Your task to perform on an android device: Open sound settings Image 0: 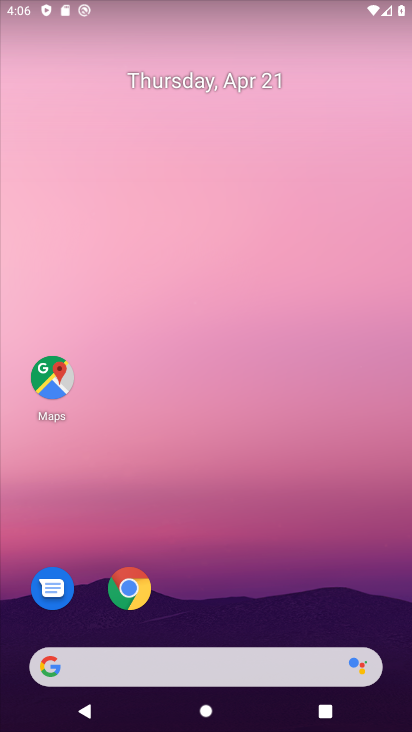
Step 0: drag from (334, 568) to (360, 173)
Your task to perform on an android device: Open sound settings Image 1: 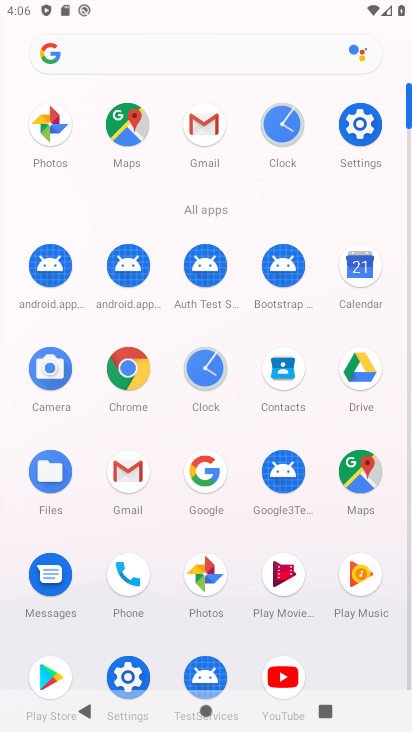
Step 1: click (358, 131)
Your task to perform on an android device: Open sound settings Image 2: 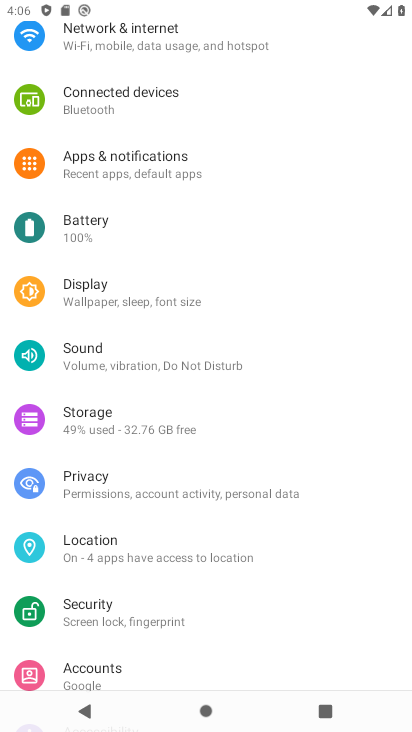
Step 2: click (123, 367)
Your task to perform on an android device: Open sound settings Image 3: 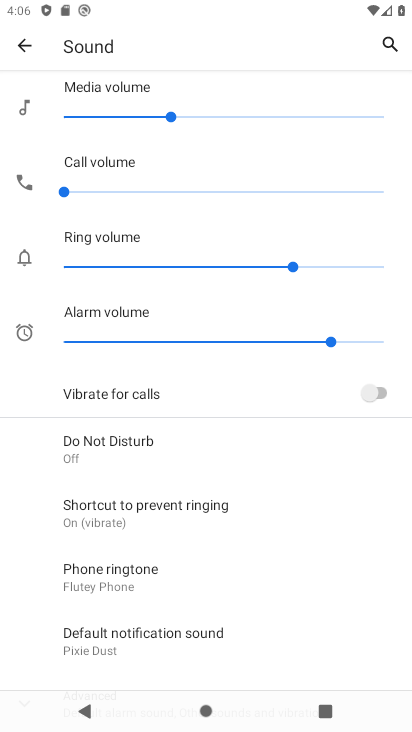
Step 3: task complete